Your task to perform on an android device: turn off location history Image 0: 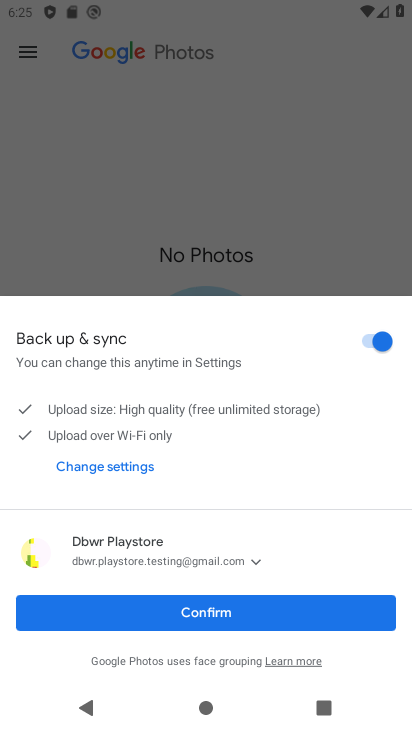
Step 0: click (72, 629)
Your task to perform on an android device: turn off location history Image 1: 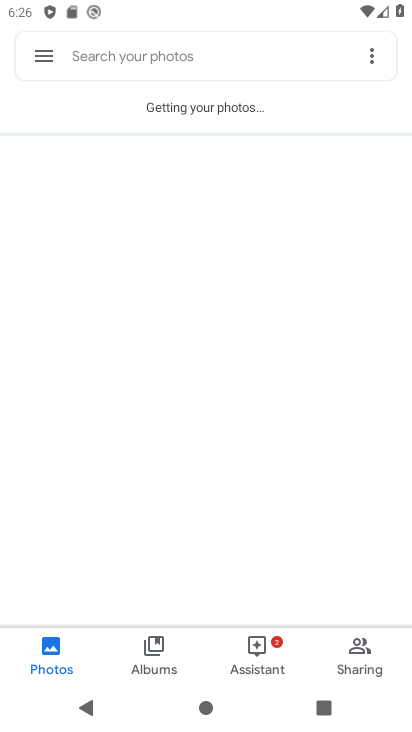
Step 1: click (214, 711)
Your task to perform on an android device: turn off location history Image 2: 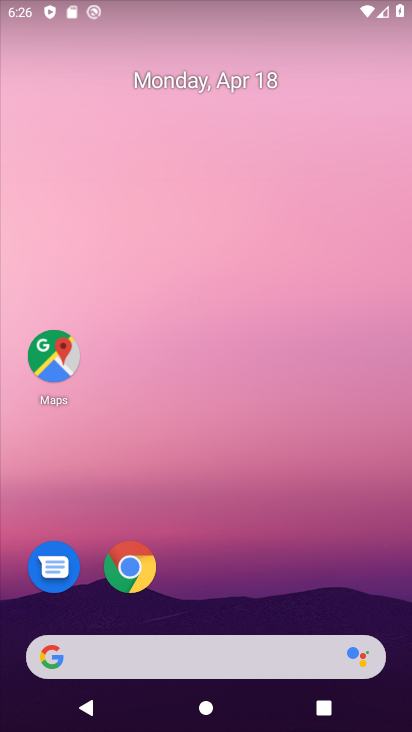
Step 2: drag from (181, 416) to (182, 204)
Your task to perform on an android device: turn off location history Image 3: 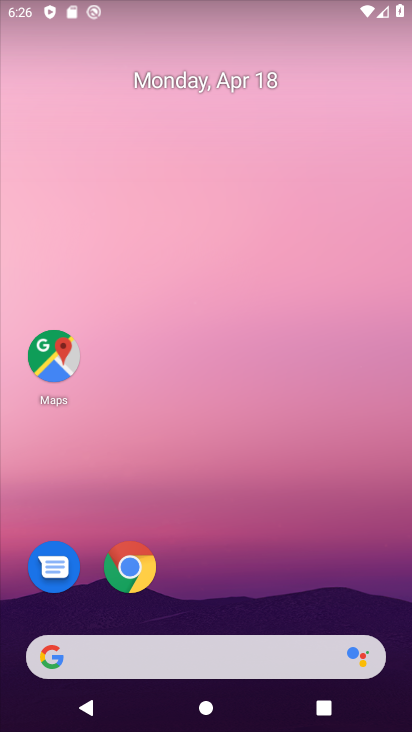
Step 3: drag from (278, 554) to (270, 382)
Your task to perform on an android device: turn off location history Image 4: 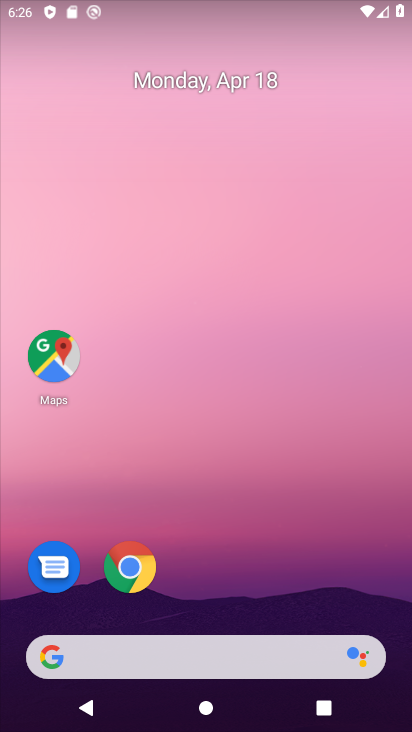
Step 4: drag from (230, 600) to (247, 177)
Your task to perform on an android device: turn off location history Image 5: 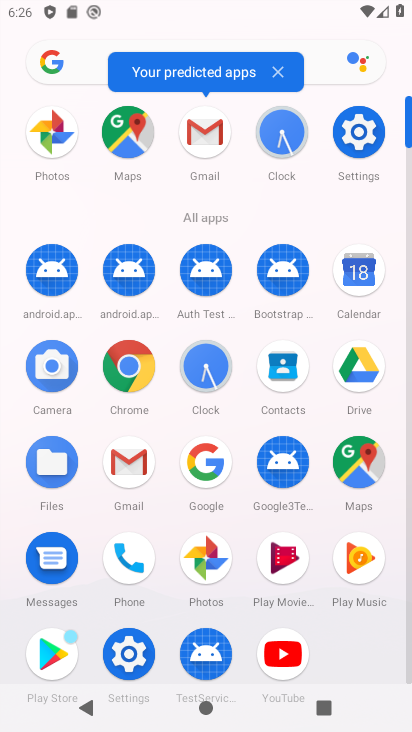
Step 5: click (133, 129)
Your task to perform on an android device: turn off location history Image 6: 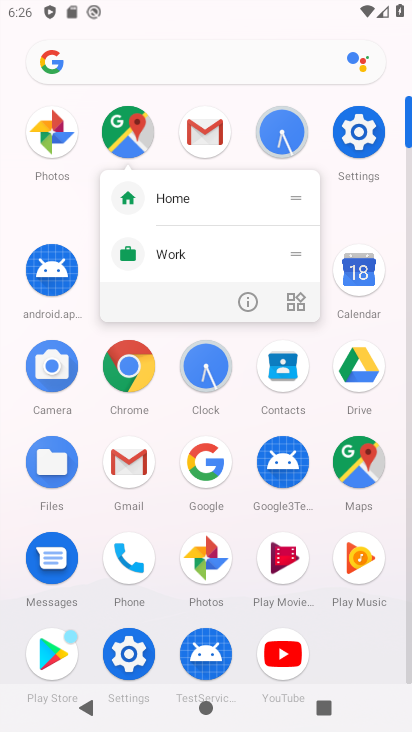
Step 6: click (133, 129)
Your task to perform on an android device: turn off location history Image 7: 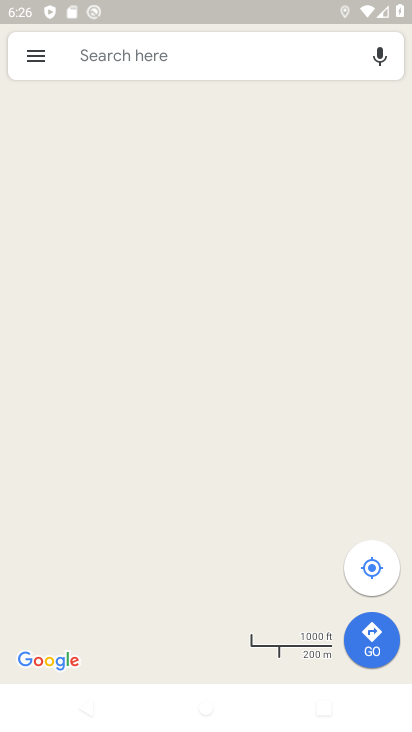
Step 7: click (42, 55)
Your task to perform on an android device: turn off location history Image 8: 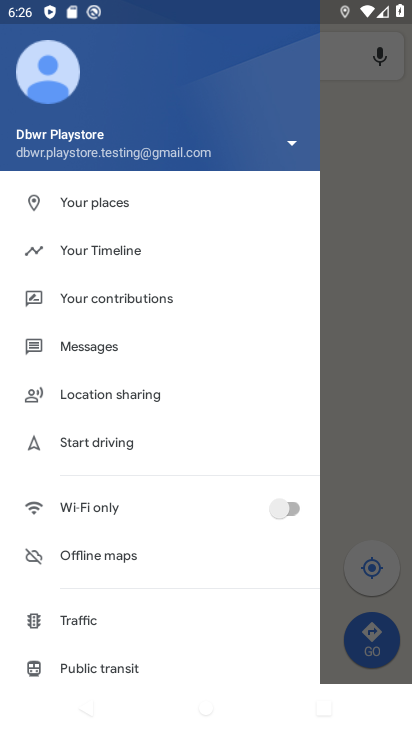
Step 8: click (123, 252)
Your task to perform on an android device: turn off location history Image 9: 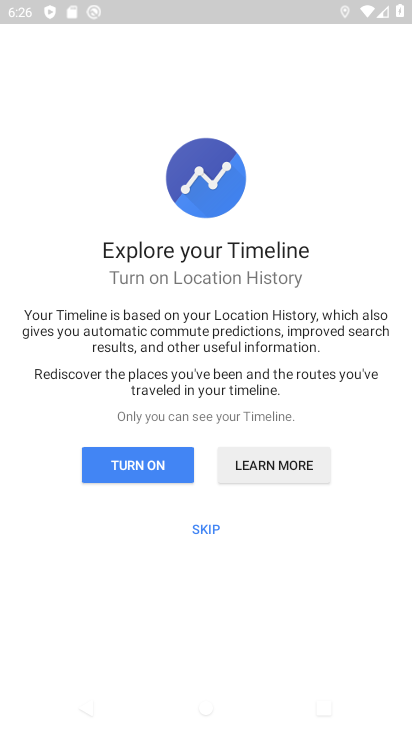
Step 9: click (148, 472)
Your task to perform on an android device: turn off location history Image 10: 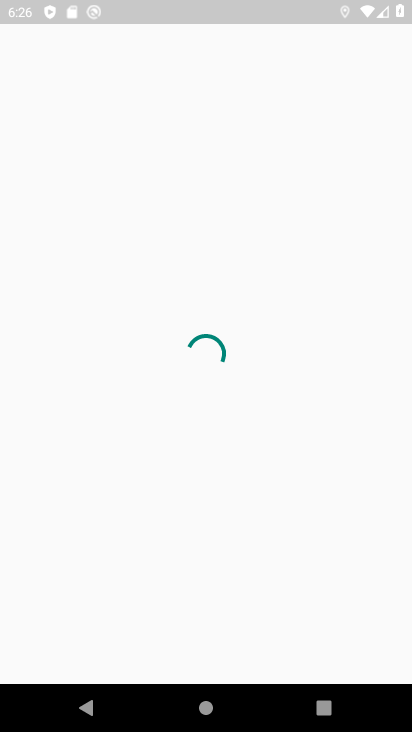
Step 10: click (390, 51)
Your task to perform on an android device: turn off location history Image 11: 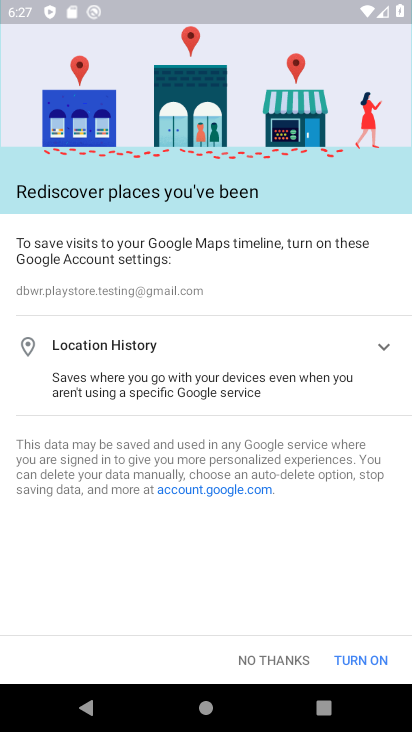
Step 11: click (285, 666)
Your task to perform on an android device: turn off location history Image 12: 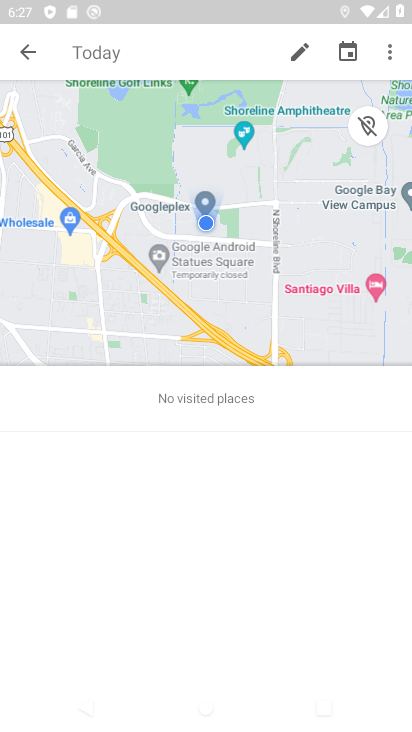
Step 12: click (386, 44)
Your task to perform on an android device: turn off location history Image 13: 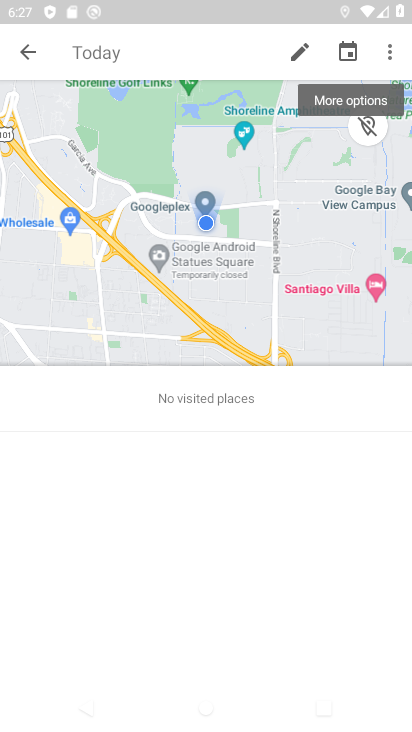
Step 13: click (386, 44)
Your task to perform on an android device: turn off location history Image 14: 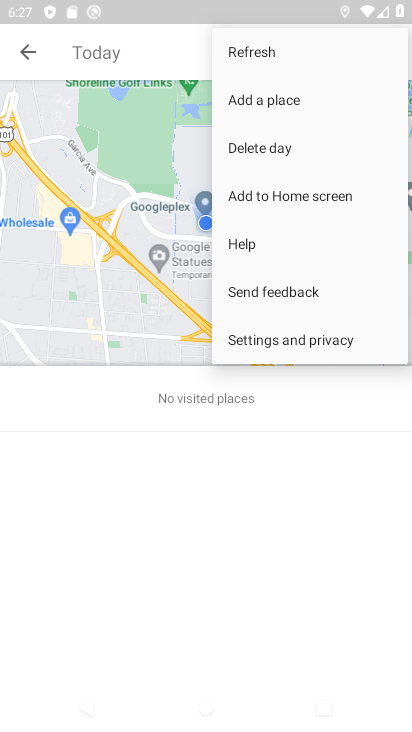
Step 14: click (275, 345)
Your task to perform on an android device: turn off location history Image 15: 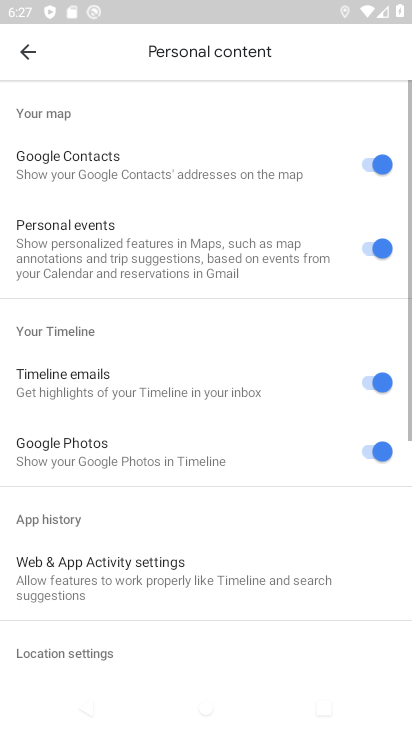
Step 15: drag from (224, 465) to (203, 282)
Your task to perform on an android device: turn off location history Image 16: 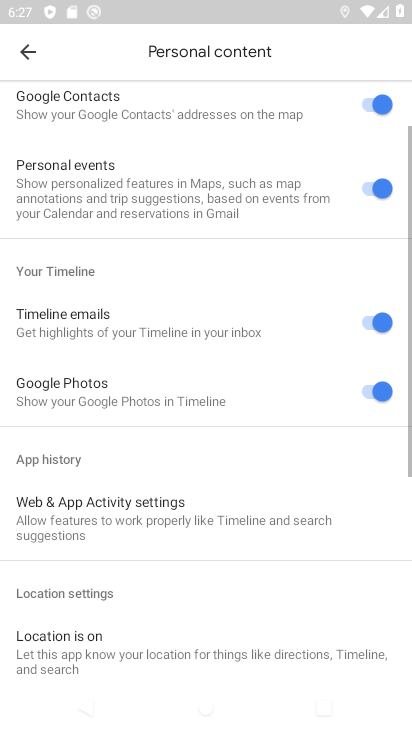
Step 16: drag from (176, 472) to (179, 275)
Your task to perform on an android device: turn off location history Image 17: 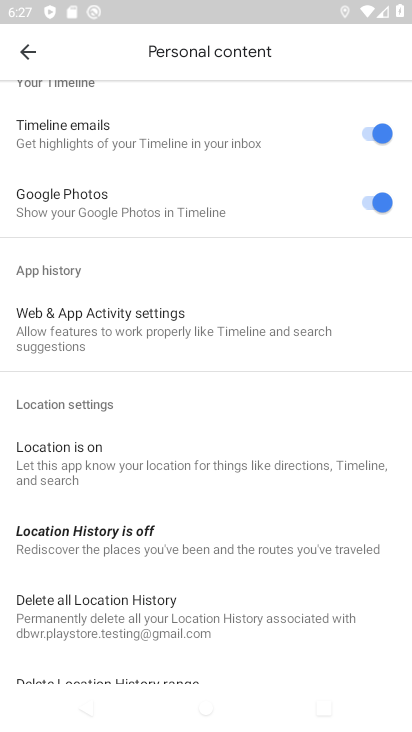
Step 17: click (177, 523)
Your task to perform on an android device: turn off location history Image 18: 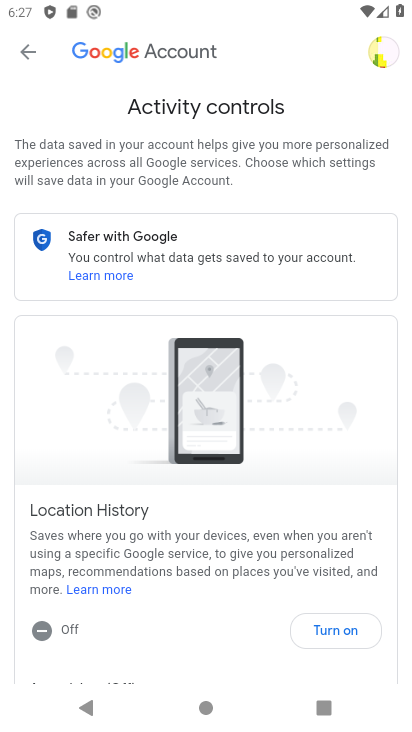
Step 18: task complete